Your task to perform on an android device: Show the shopping cart on walmart. Add asus rog to the cart on walmart Image 0: 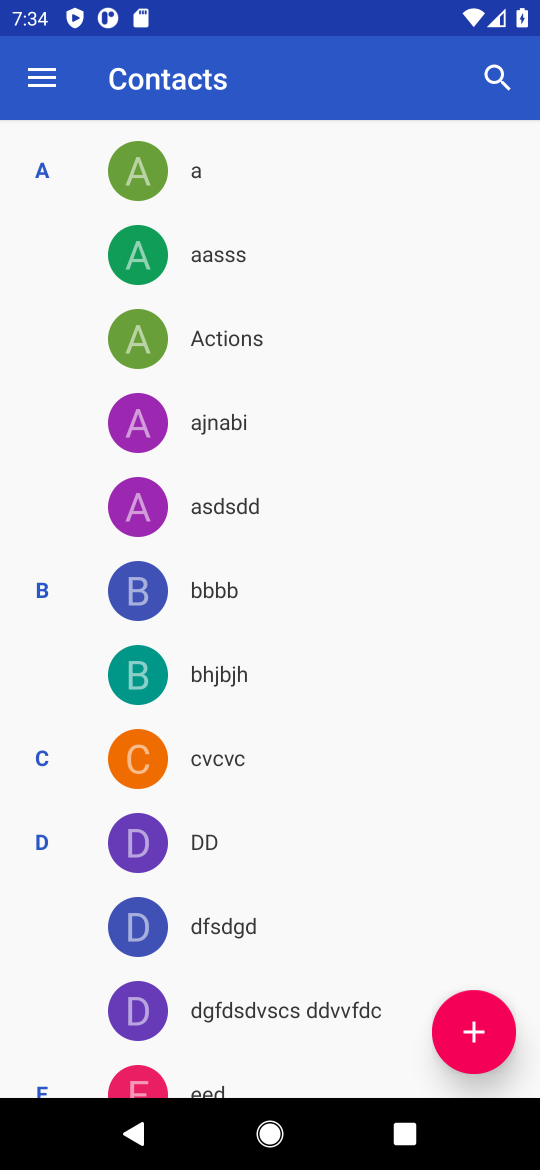
Step 0: press home button
Your task to perform on an android device: Show the shopping cart on walmart. Add asus rog to the cart on walmart Image 1: 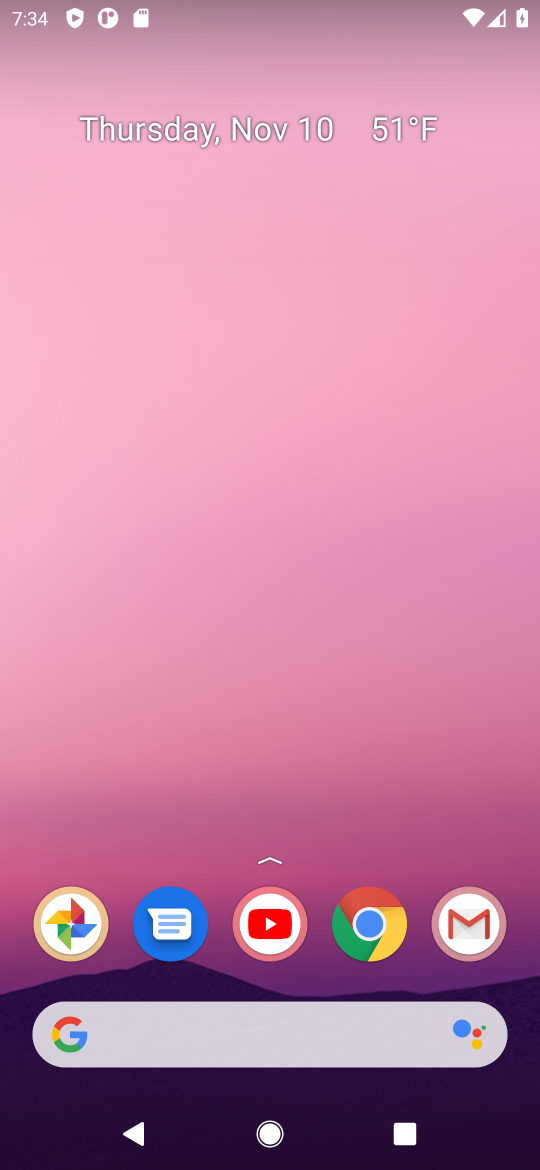
Step 1: click (372, 935)
Your task to perform on an android device: Show the shopping cart on walmart. Add asus rog to the cart on walmart Image 2: 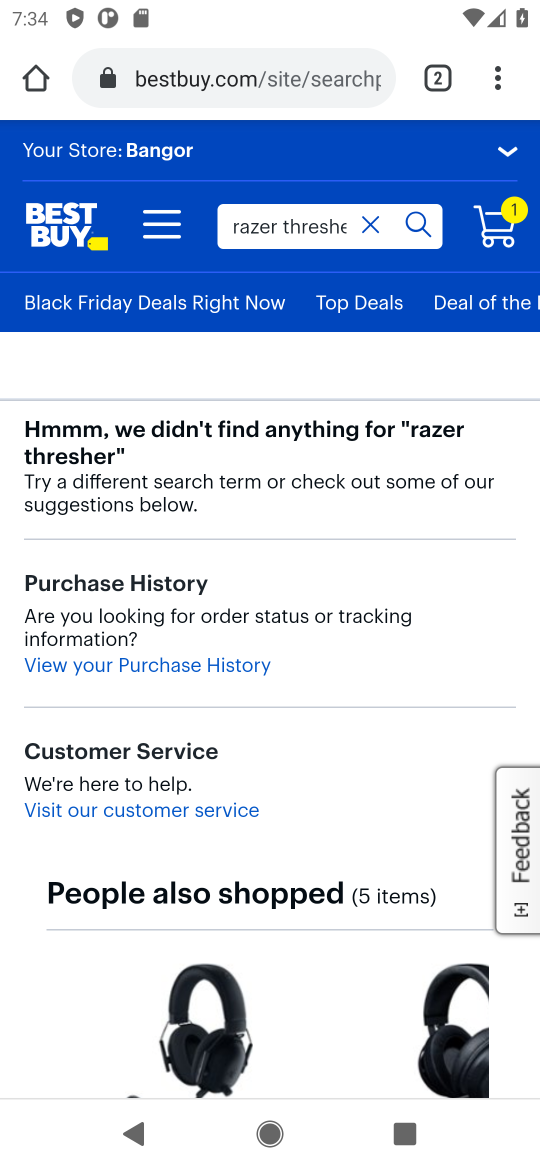
Step 2: click (248, 85)
Your task to perform on an android device: Show the shopping cart on walmart. Add asus rog to the cart on walmart Image 3: 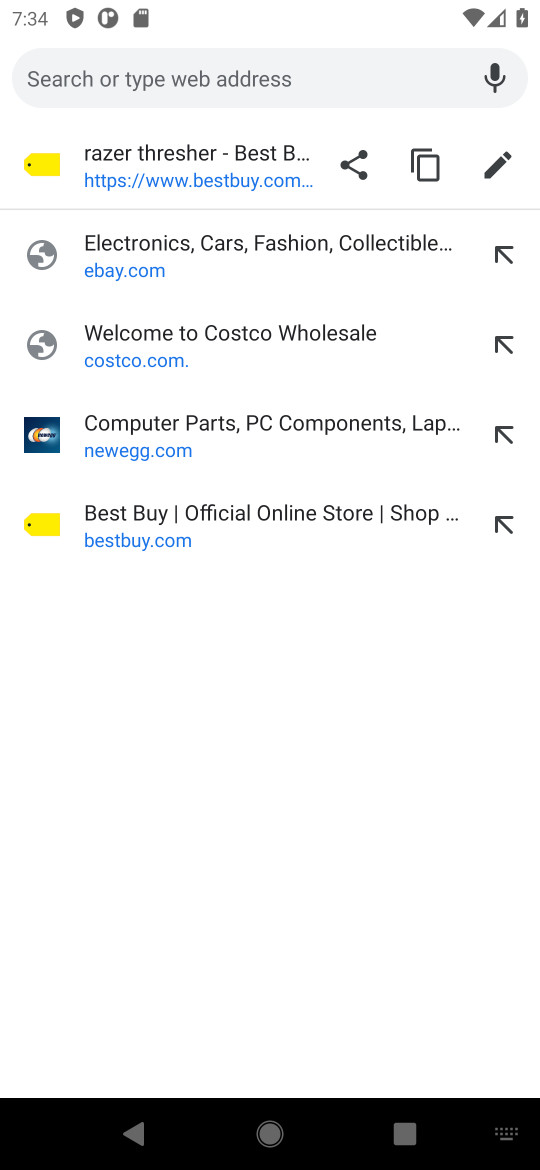
Step 3: type "walmart.com"
Your task to perform on an android device: Show the shopping cart on walmart. Add asus rog to the cart on walmart Image 4: 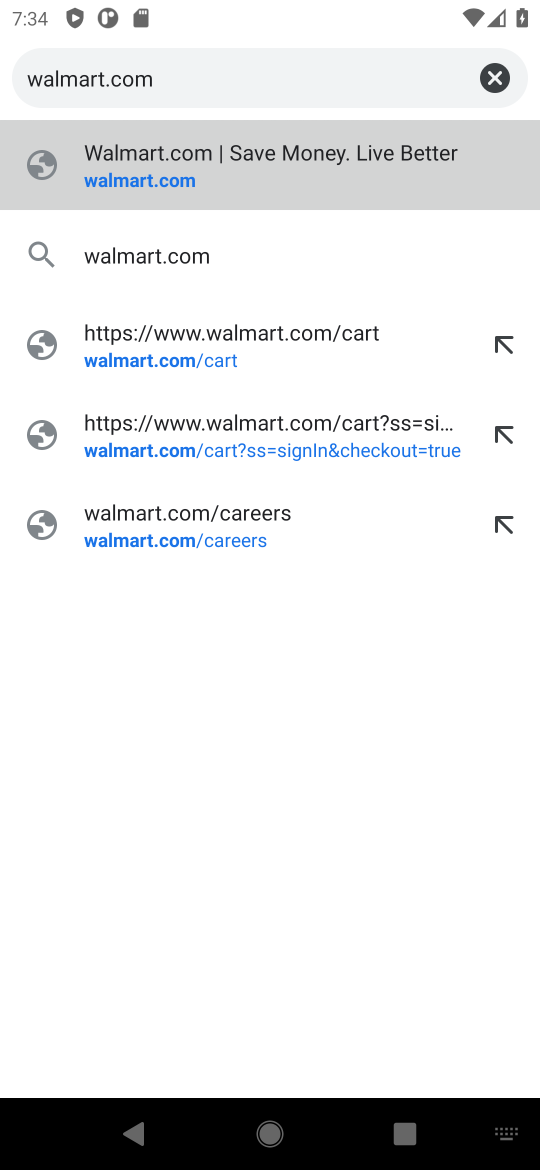
Step 4: click (138, 174)
Your task to perform on an android device: Show the shopping cart on walmart. Add asus rog to the cart on walmart Image 5: 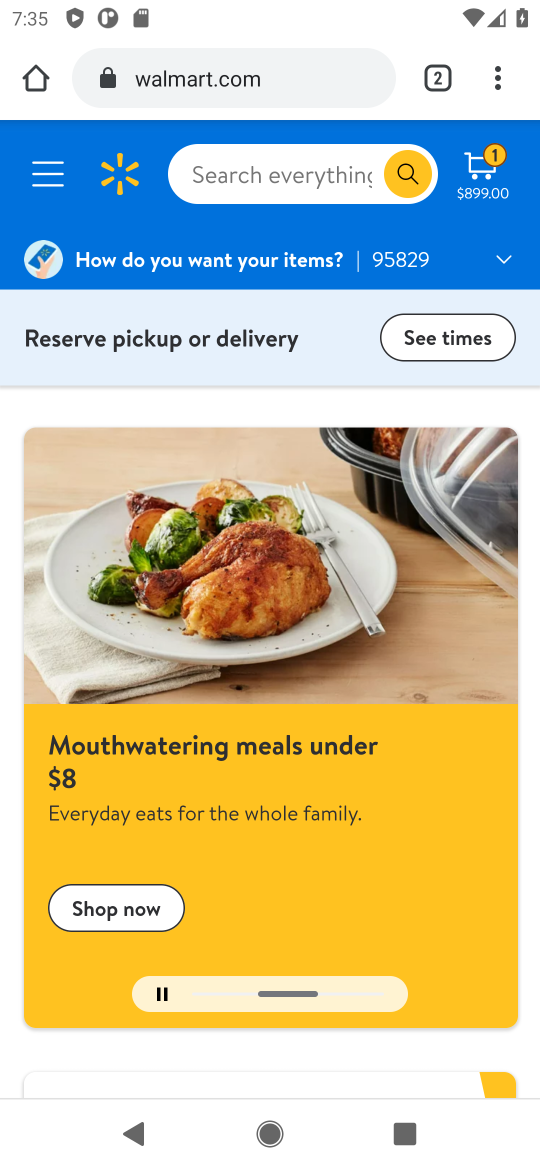
Step 5: click (506, 163)
Your task to perform on an android device: Show the shopping cart on walmart. Add asus rog to the cart on walmart Image 6: 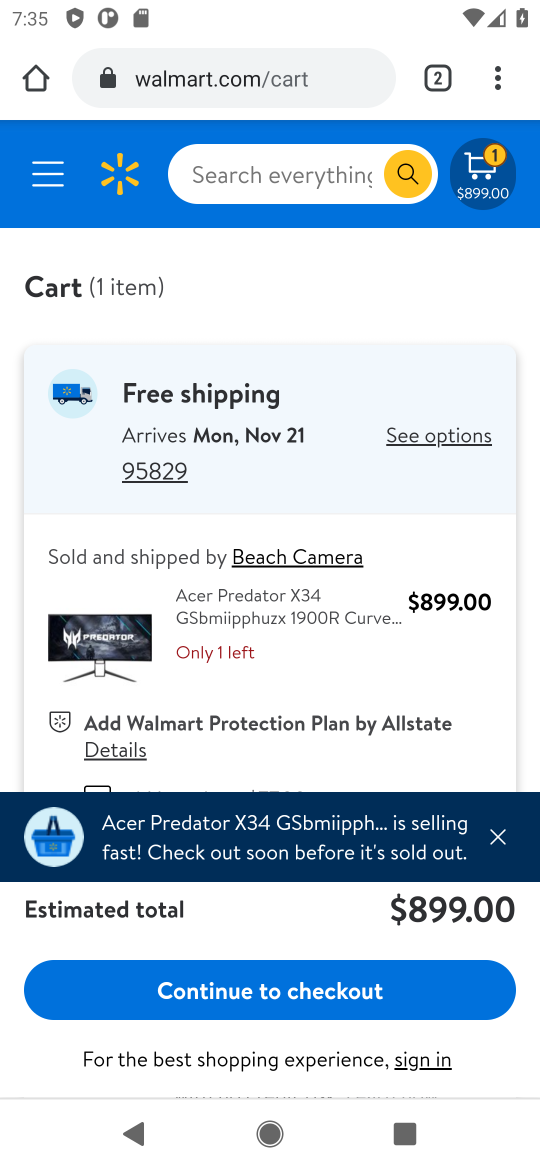
Step 6: click (272, 176)
Your task to perform on an android device: Show the shopping cart on walmart. Add asus rog to the cart on walmart Image 7: 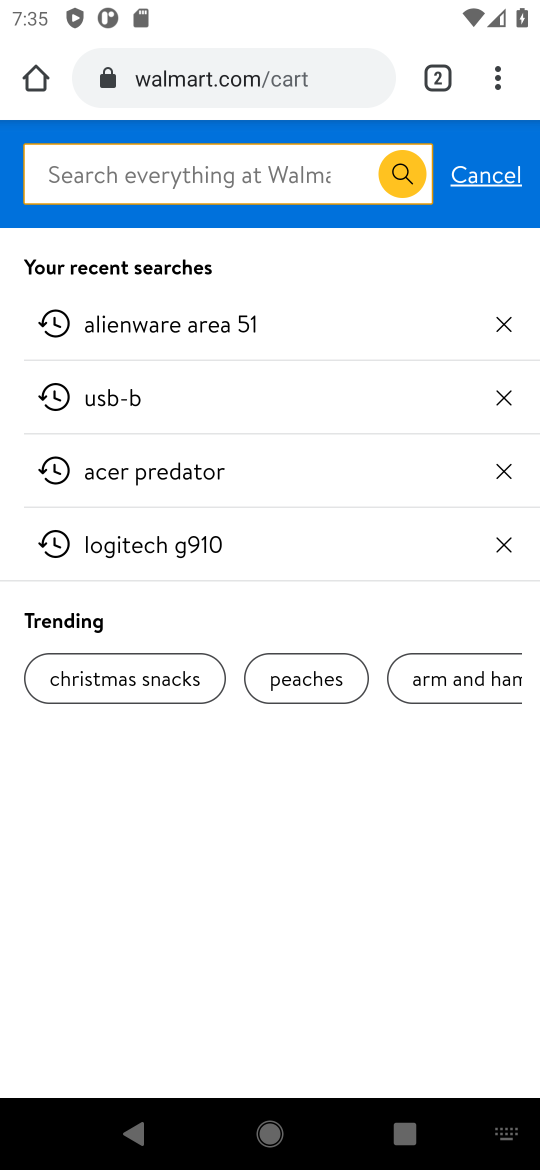
Step 7: type "asus rog"
Your task to perform on an android device: Show the shopping cart on walmart. Add asus rog to the cart on walmart Image 8: 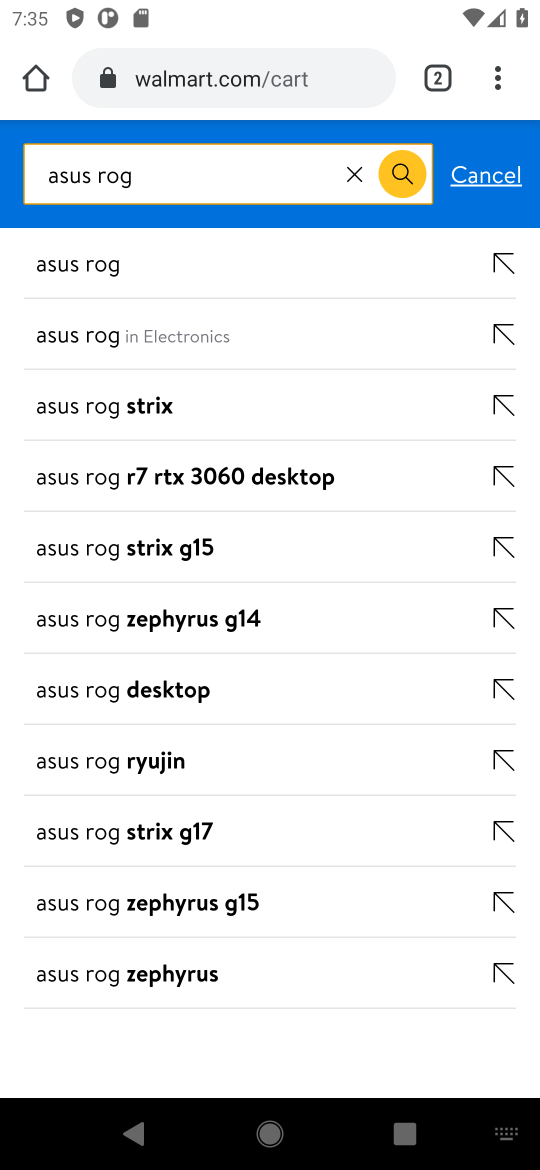
Step 8: click (95, 279)
Your task to perform on an android device: Show the shopping cart on walmart. Add asus rog to the cart on walmart Image 9: 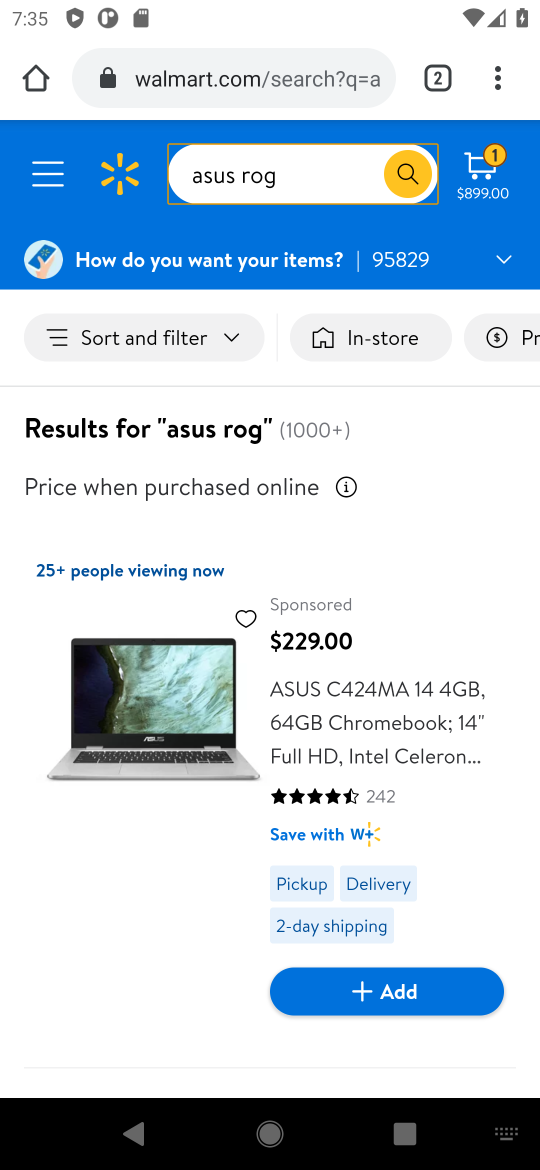
Step 9: drag from (171, 843) to (154, 420)
Your task to perform on an android device: Show the shopping cart on walmart. Add asus rog to the cart on walmart Image 10: 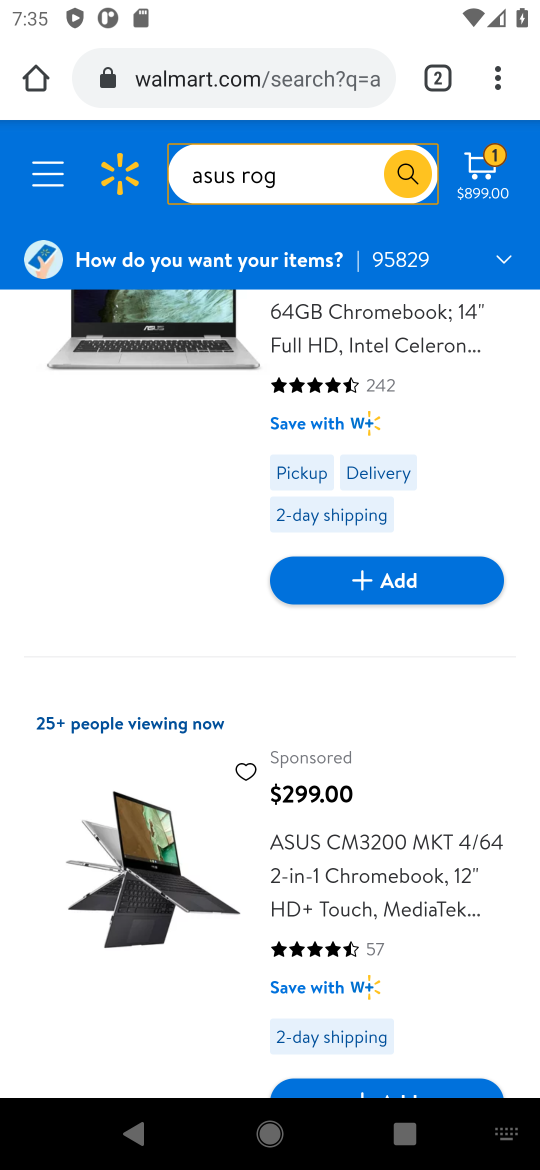
Step 10: drag from (131, 850) to (142, 399)
Your task to perform on an android device: Show the shopping cart on walmart. Add asus rog to the cart on walmart Image 11: 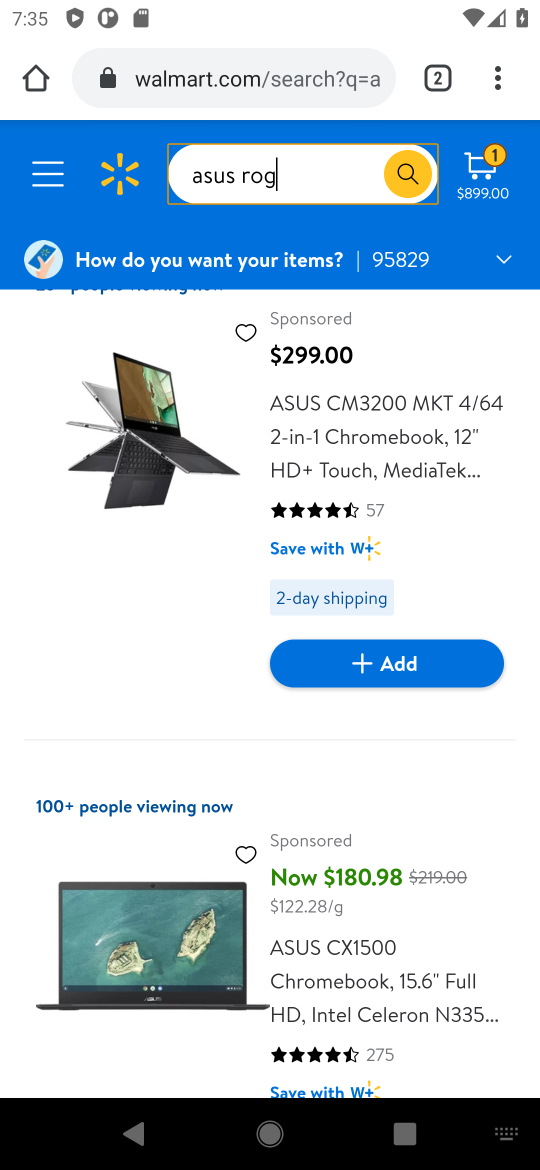
Step 11: drag from (150, 888) to (183, 406)
Your task to perform on an android device: Show the shopping cart on walmart. Add asus rog to the cart on walmart Image 12: 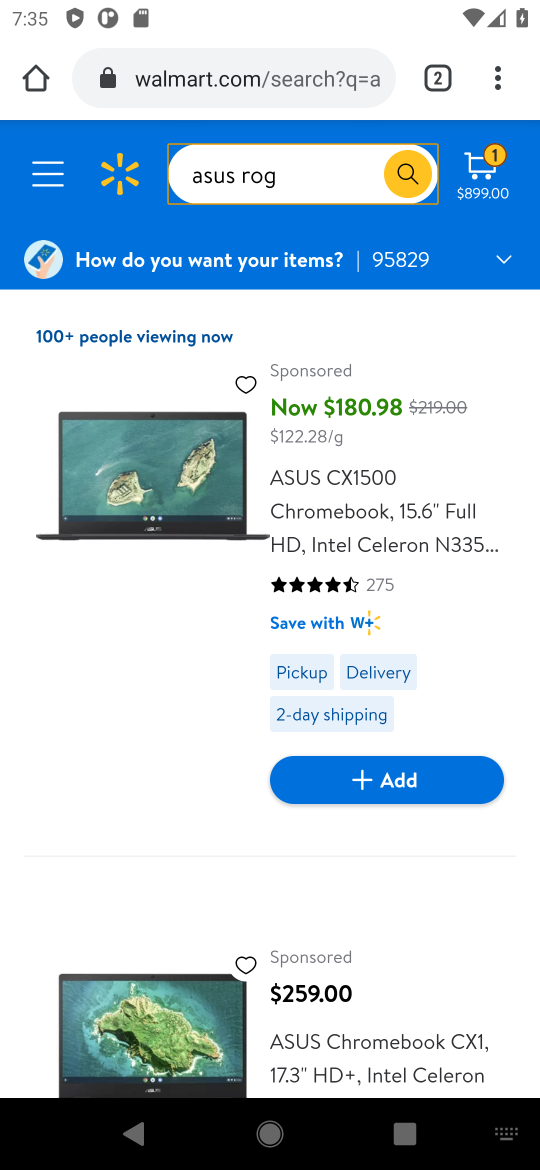
Step 12: drag from (163, 905) to (174, 483)
Your task to perform on an android device: Show the shopping cart on walmart. Add asus rog to the cart on walmart Image 13: 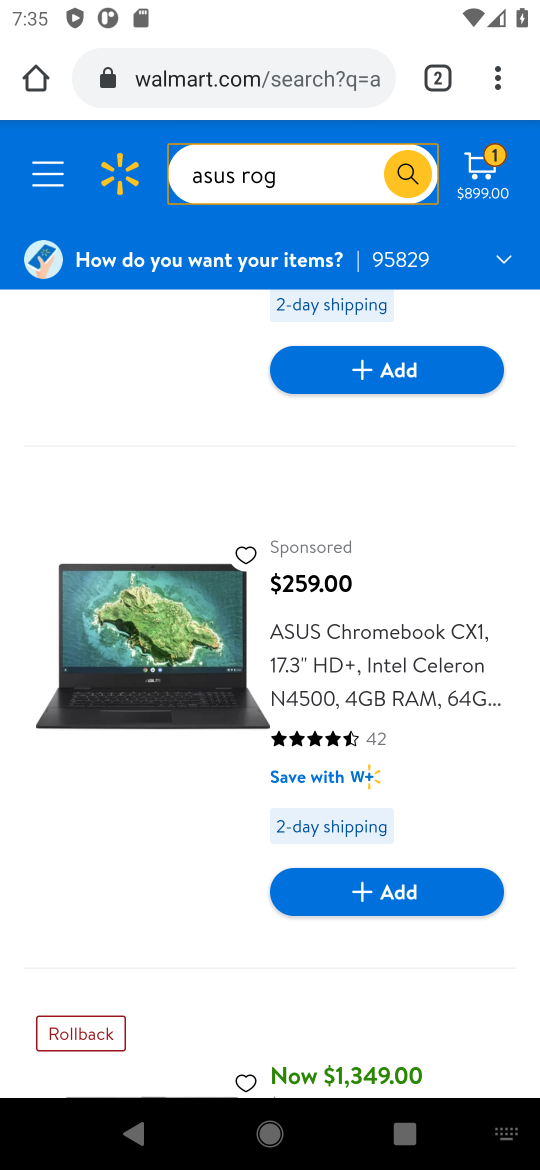
Step 13: drag from (157, 999) to (181, 418)
Your task to perform on an android device: Show the shopping cart on walmart. Add asus rog to the cart on walmart Image 14: 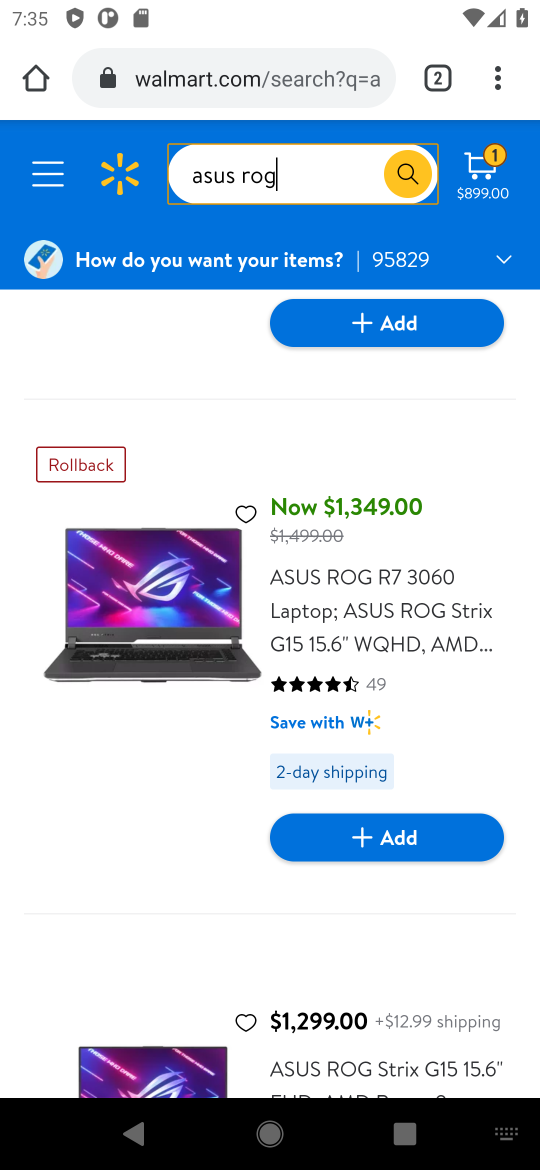
Step 14: click (405, 848)
Your task to perform on an android device: Show the shopping cart on walmart. Add asus rog to the cart on walmart Image 15: 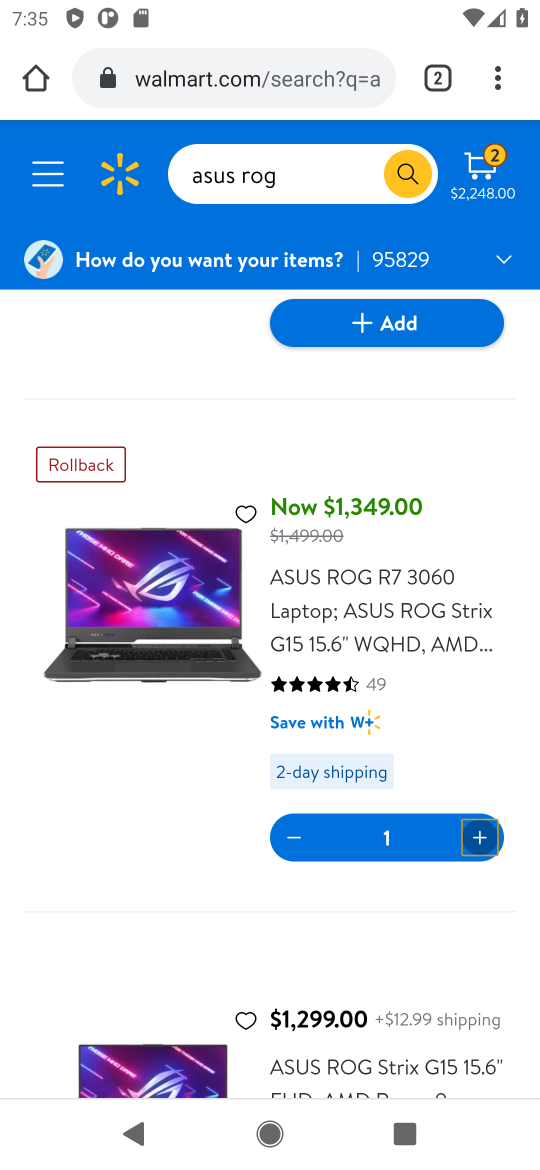
Step 15: task complete